Your task to perform on an android device: Open my contact list Image 0: 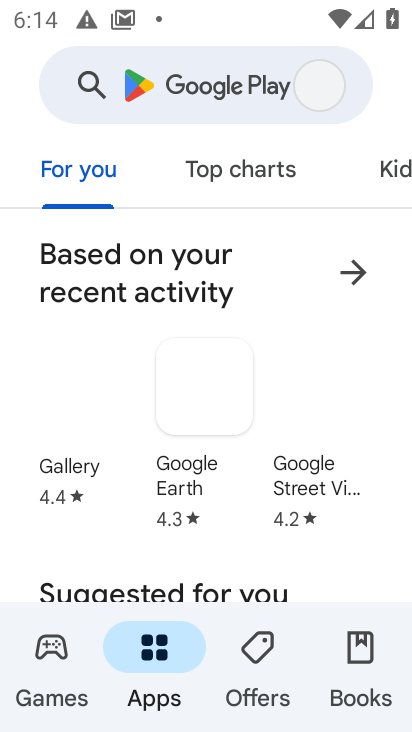
Step 0: press home button
Your task to perform on an android device: Open my contact list Image 1: 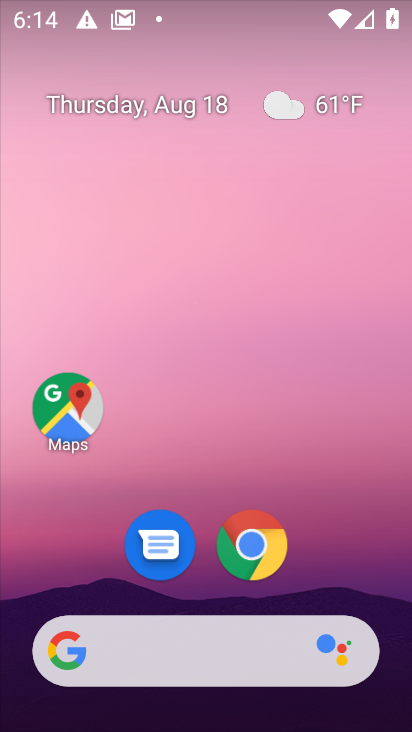
Step 1: drag from (200, 480) to (185, 75)
Your task to perform on an android device: Open my contact list Image 2: 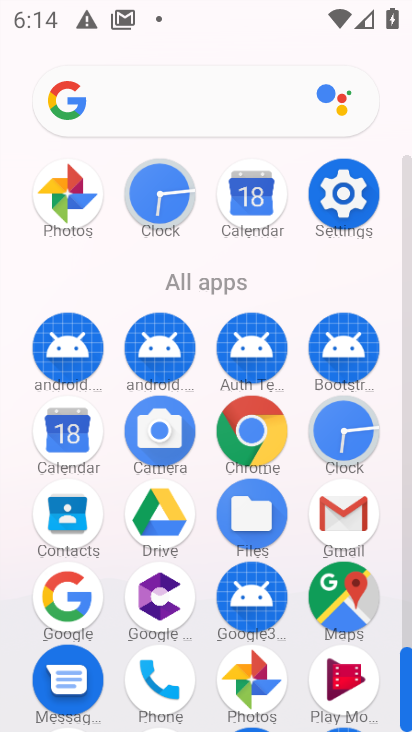
Step 2: click (68, 516)
Your task to perform on an android device: Open my contact list Image 3: 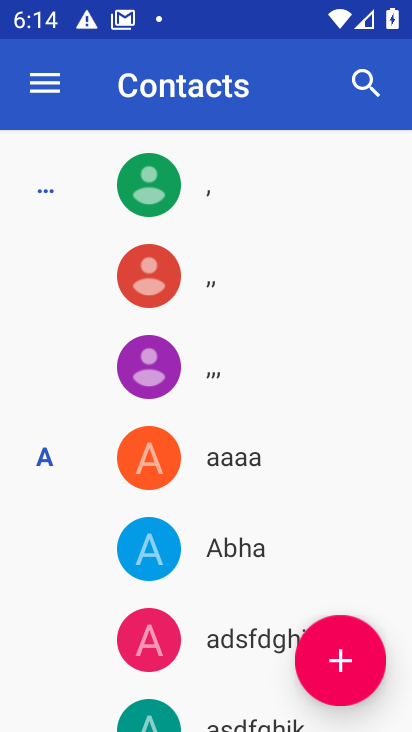
Step 3: task complete